Your task to perform on an android device: What's the weather today? Image 0: 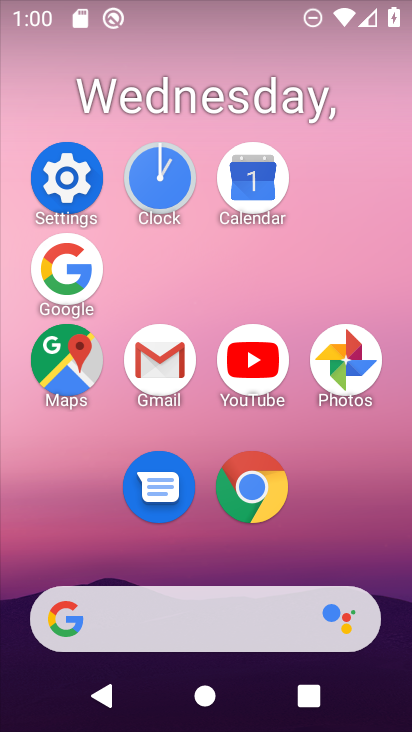
Step 0: click (71, 266)
Your task to perform on an android device: What's the weather today? Image 1: 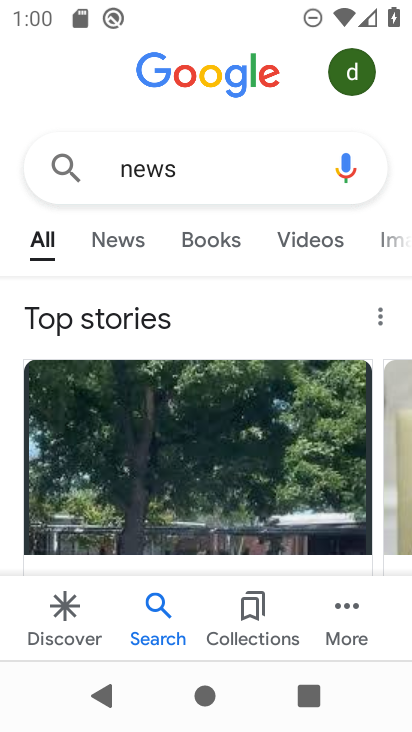
Step 1: click (242, 182)
Your task to perform on an android device: What's the weather today? Image 2: 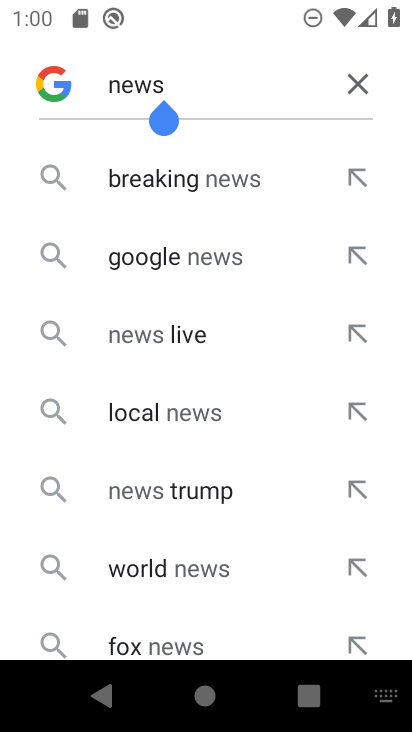
Step 2: click (354, 83)
Your task to perform on an android device: What's the weather today? Image 3: 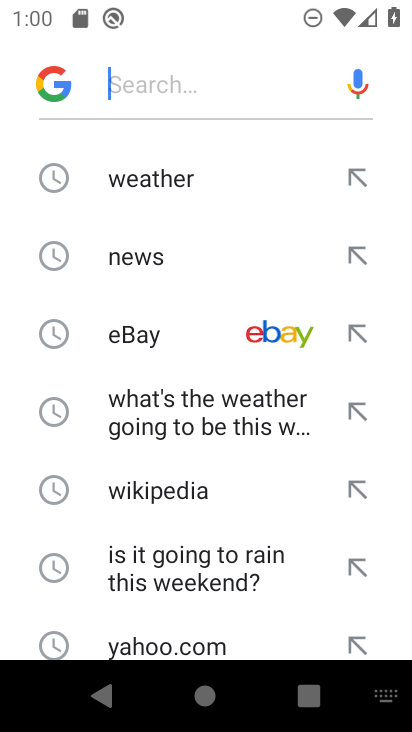
Step 3: click (144, 206)
Your task to perform on an android device: What's the weather today? Image 4: 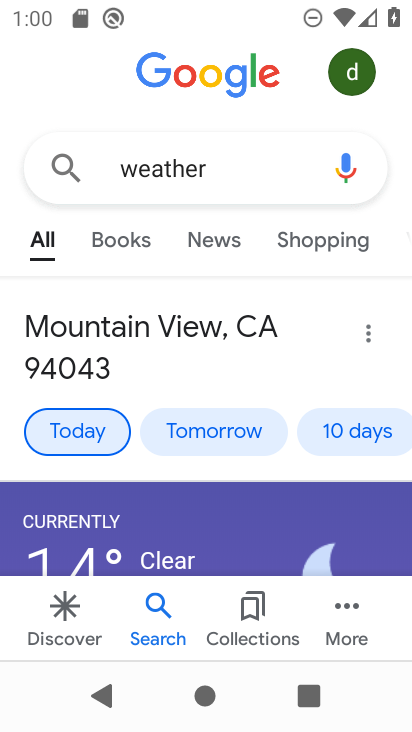
Step 4: task complete